Your task to perform on an android device: change the clock style Image 0: 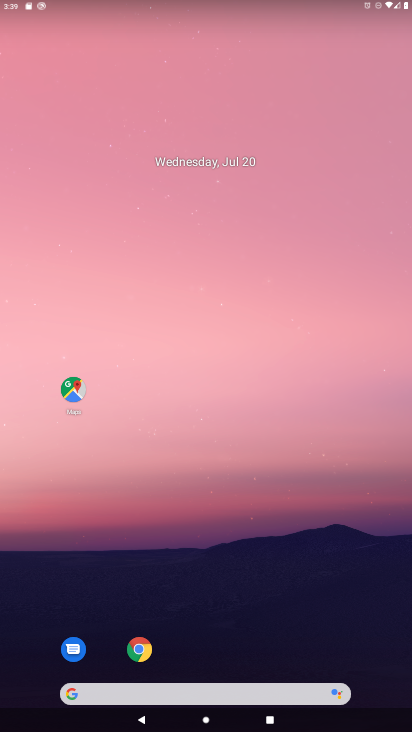
Step 0: drag from (210, 696) to (250, 191)
Your task to perform on an android device: change the clock style Image 1: 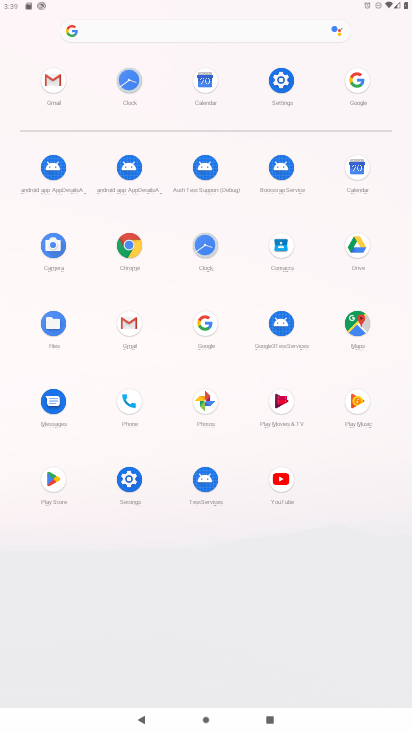
Step 1: click (130, 80)
Your task to perform on an android device: change the clock style Image 2: 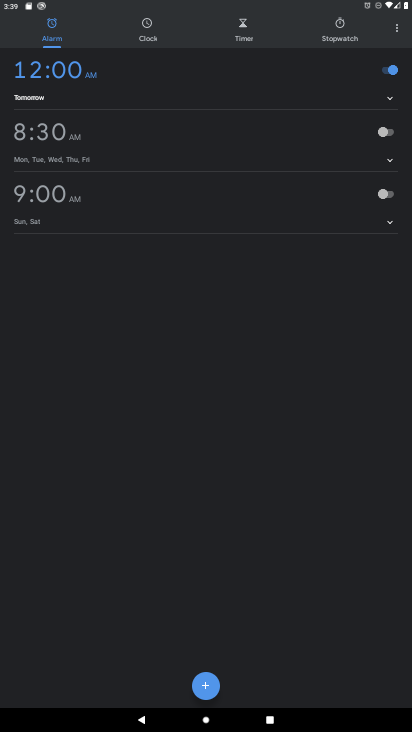
Step 2: click (396, 29)
Your task to perform on an android device: change the clock style Image 3: 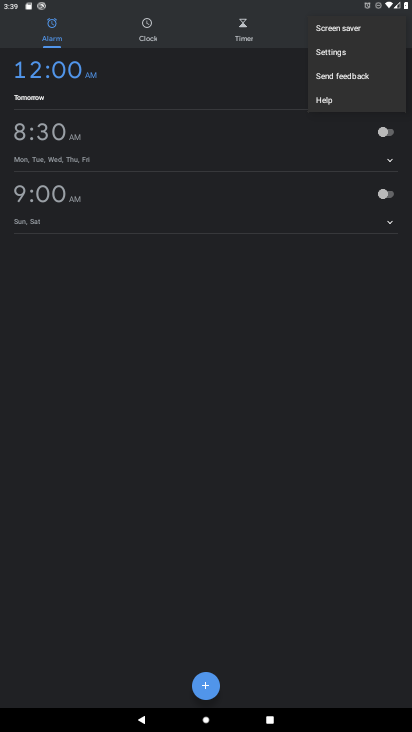
Step 3: click (348, 55)
Your task to perform on an android device: change the clock style Image 4: 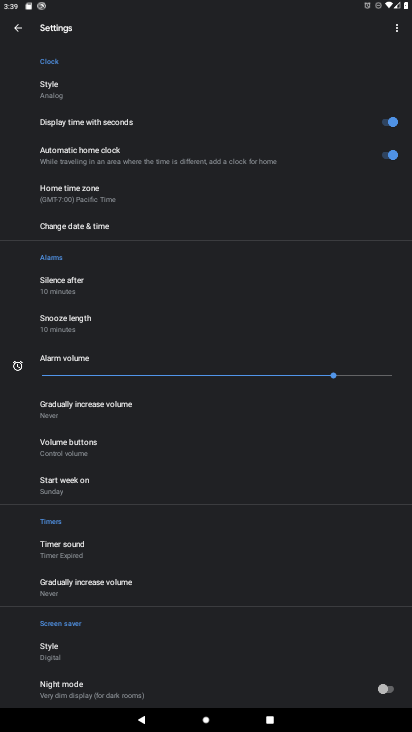
Step 4: click (56, 95)
Your task to perform on an android device: change the clock style Image 5: 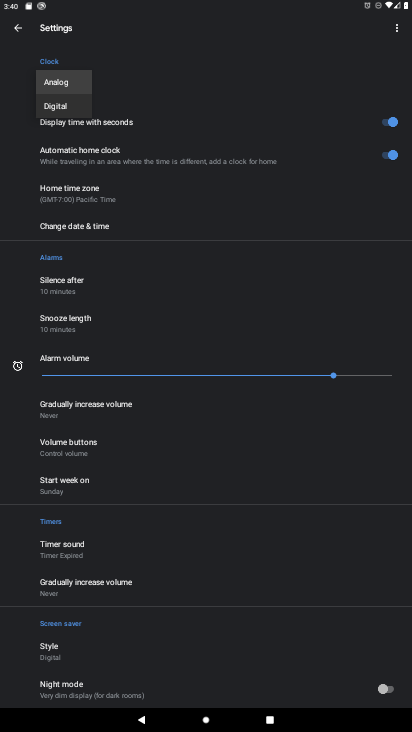
Step 5: click (62, 106)
Your task to perform on an android device: change the clock style Image 6: 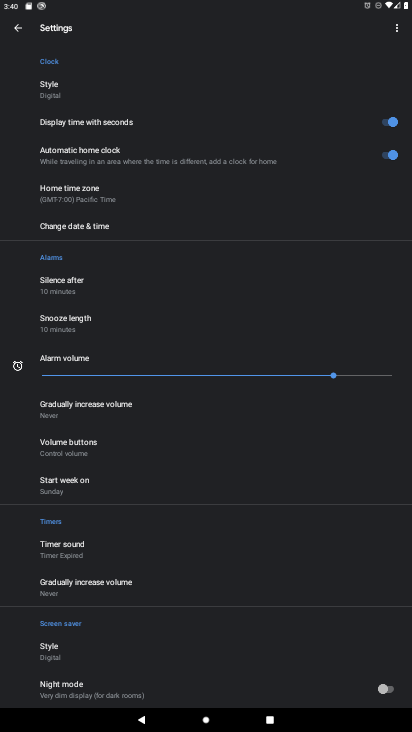
Step 6: task complete